Your task to perform on an android device: clear history in the chrome app Image 0: 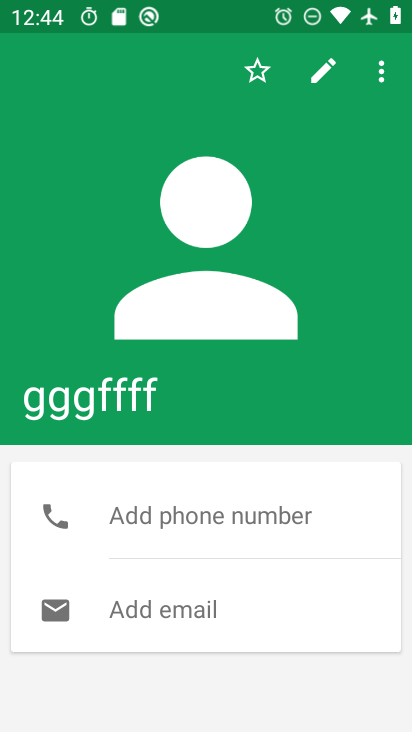
Step 0: press home button
Your task to perform on an android device: clear history in the chrome app Image 1: 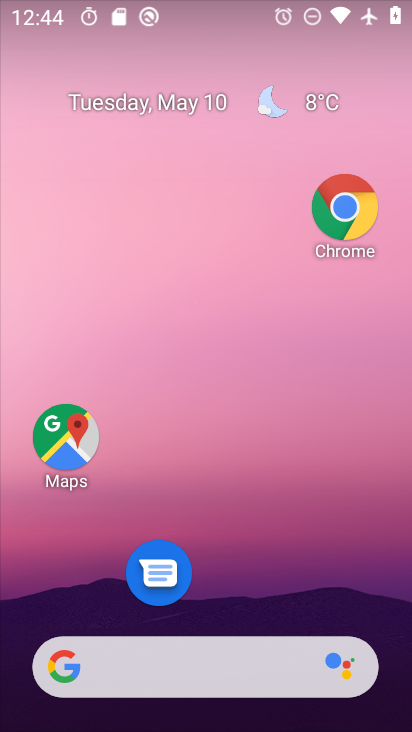
Step 1: click (340, 219)
Your task to perform on an android device: clear history in the chrome app Image 2: 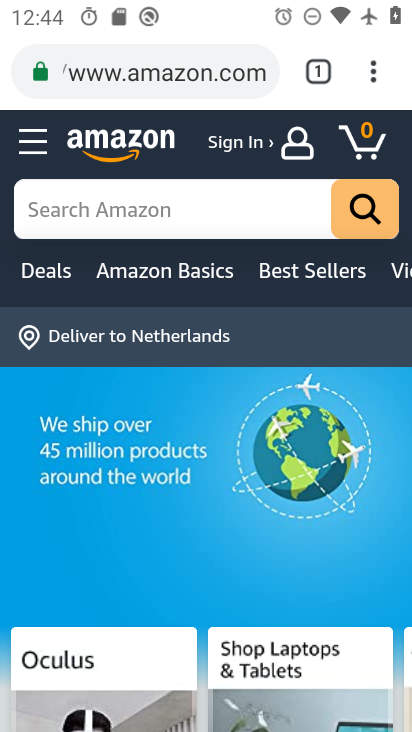
Step 2: drag from (379, 64) to (245, 411)
Your task to perform on an android device: clear history in the chrome app Image 3: 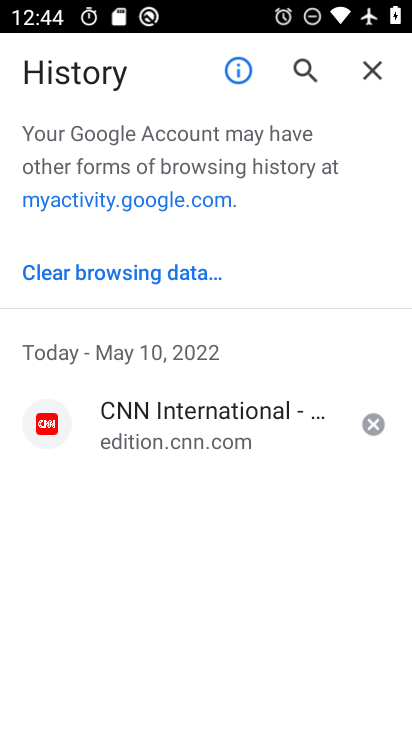
Step 3: click (155, 262)
Your task to perform on an android device: clear history in the chrome app Image 4: 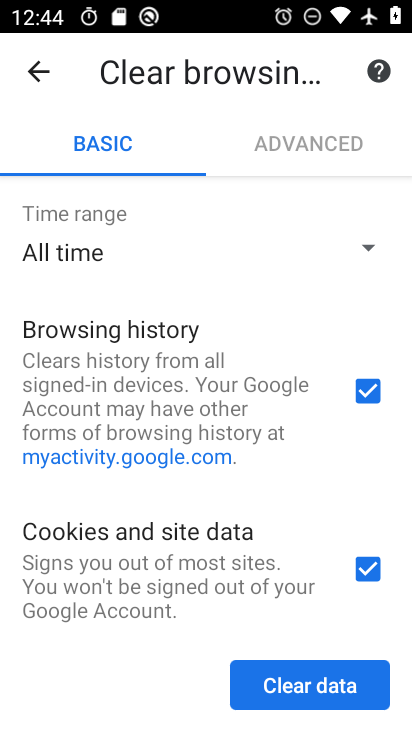
Step 4: click (358, 682)
Your task to perform on an android device: clear history in the chrome app Image 5: 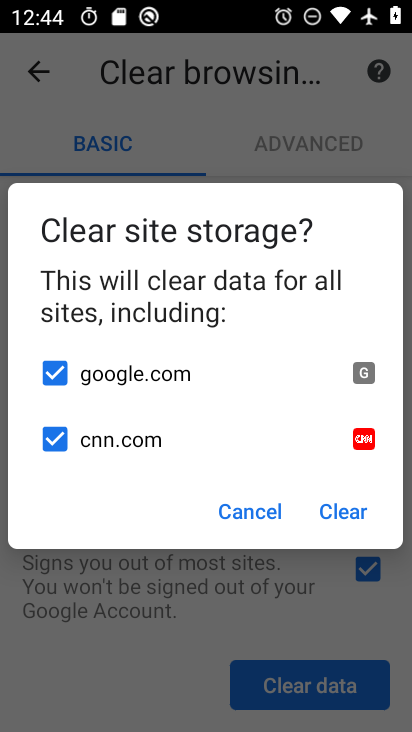
Step 5: click (343, 513)
Your task to perform on an android device: clear history in the chrome app Image 6: 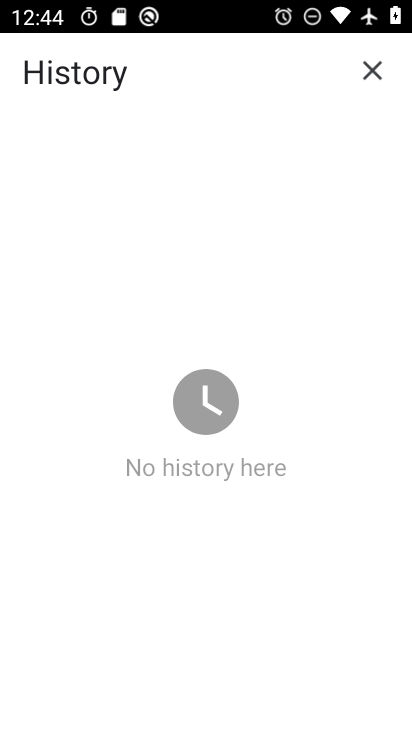
Step 6: task complete